Your task to perform on an android device: set the stopwatch Image 0: 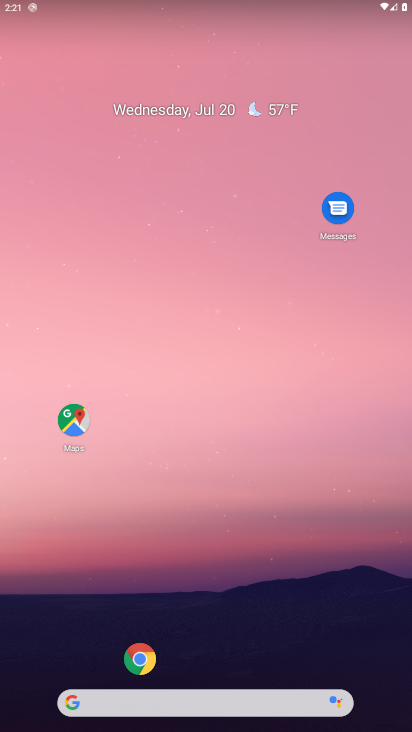
Step 0: drag from (22, 668) to (223, 55)
Your task to perform on an android device: set the stopwatch Image 1: 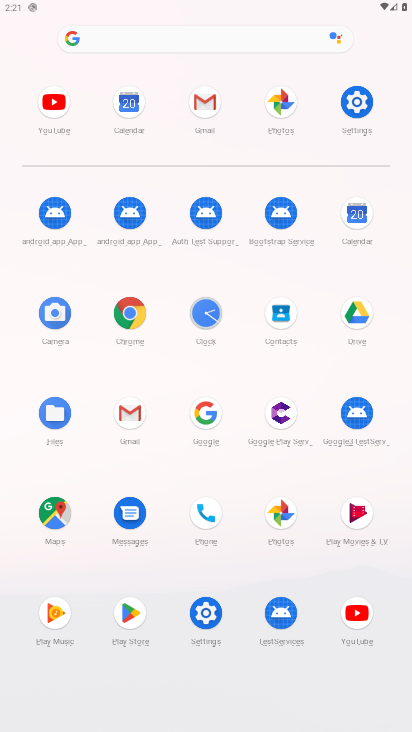
Step 1: click (182, 311)
Your task to perform on an android device: set the stopwatch Image 2: 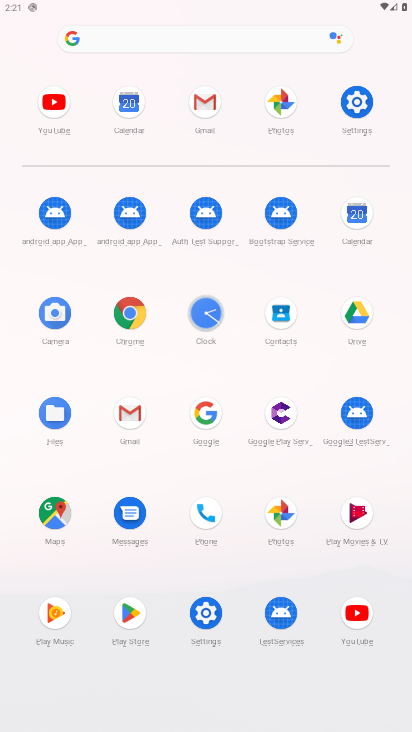
Step 2: click (226, 316)
Your task to perform on an android device: set the stopwatch Image 3: 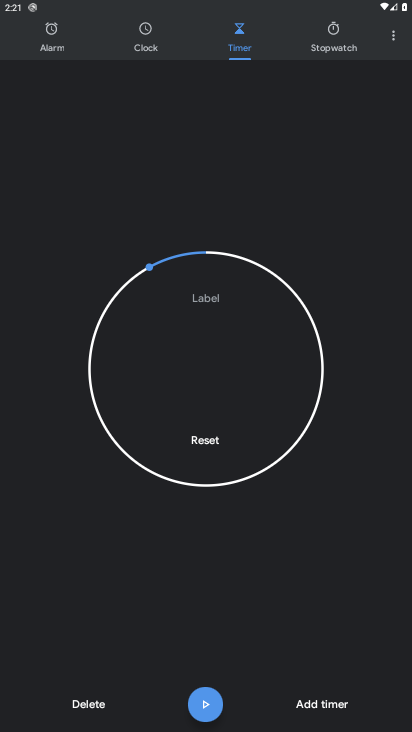
Step 3: click (209, 698)
Your task to perform on an android device: set the stopwatch Image 4: 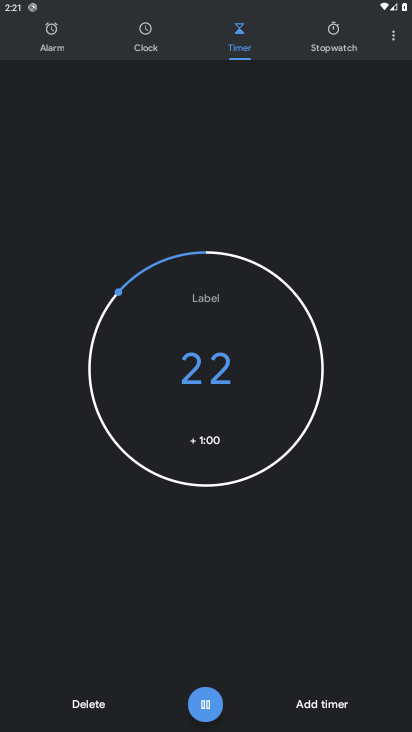
Step 4: click (205, 705)
Your task to perform on an android device: set the stopwatch Image 5: 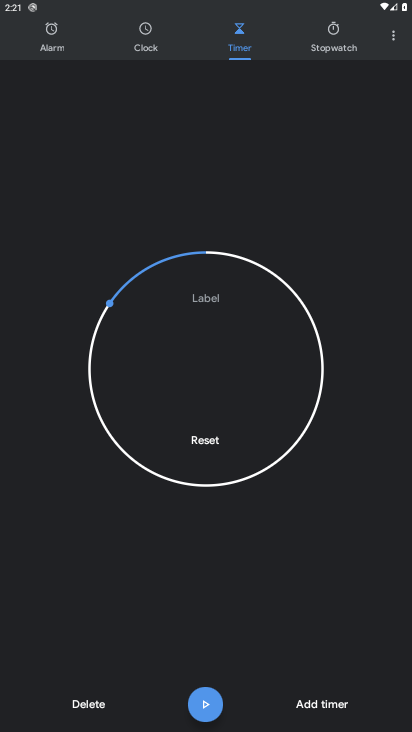
Step 5: task complete